Your task to perform on an android device: delete location history Image 0: 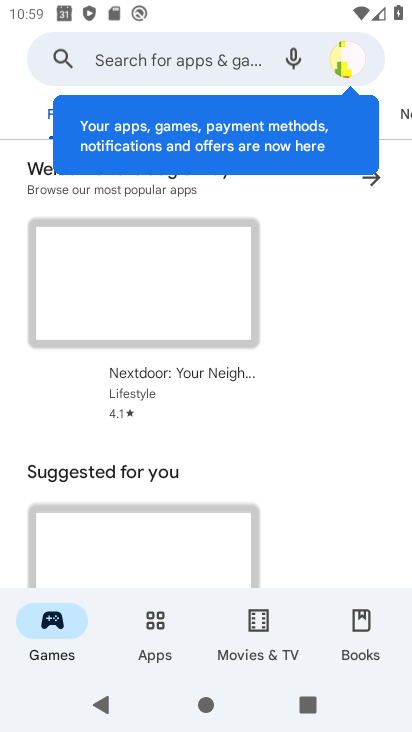
Step 0: press home button
Your task to perform on an android device: delete location history Image 1: 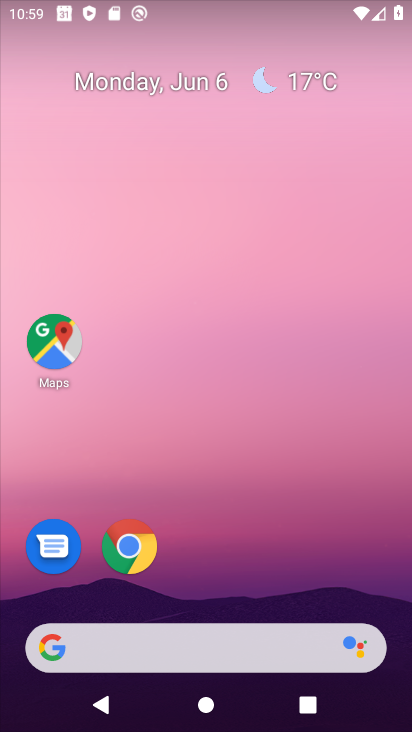
Step 1: drag from (291, 527) to (221, 72)
Your task to perform on an android device: delete location history Image 2: 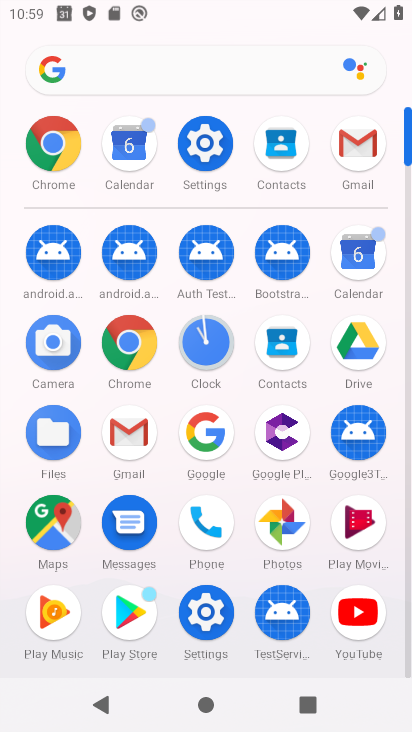
Step 2: click (49, 527)
Your task to perform on an android device: delete location history Image 3: 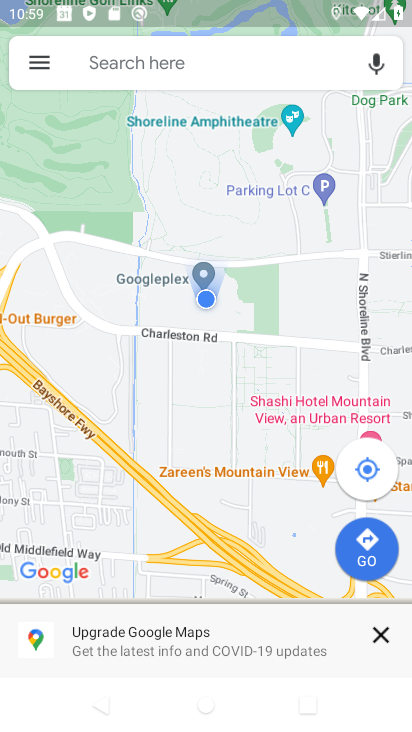
Step 3: click (40, 57)
Your task to perform on an android device: delete location history Image 4: 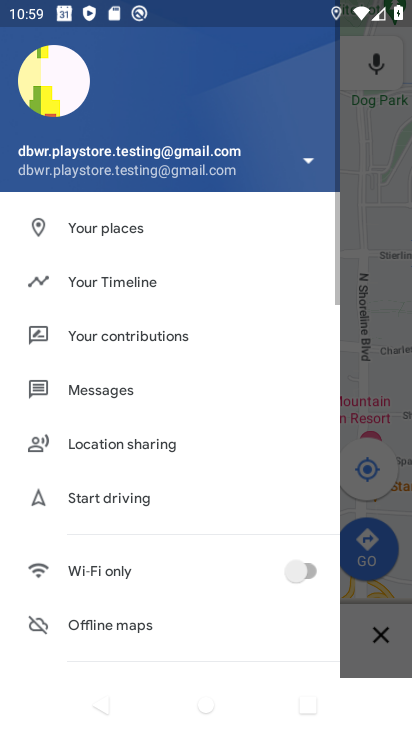
Step 4: drag from (139, 409) to (244, 86)
Your task to perform on an android device: delete location history Image 5: 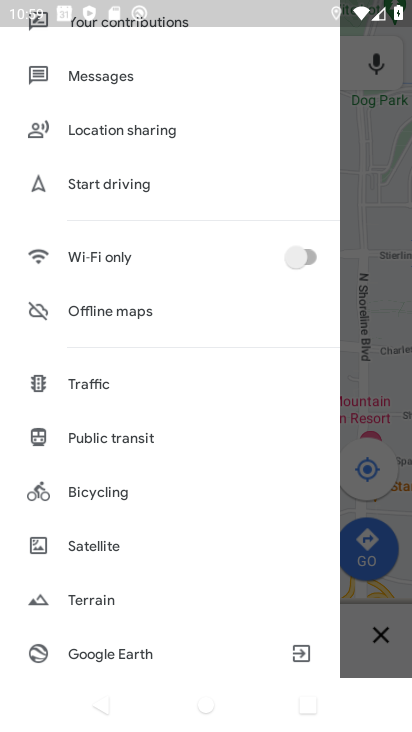
Step 5: drag from (120, 569) to (276, 134)
Your task to perform on an android device: delete location history Image 6: 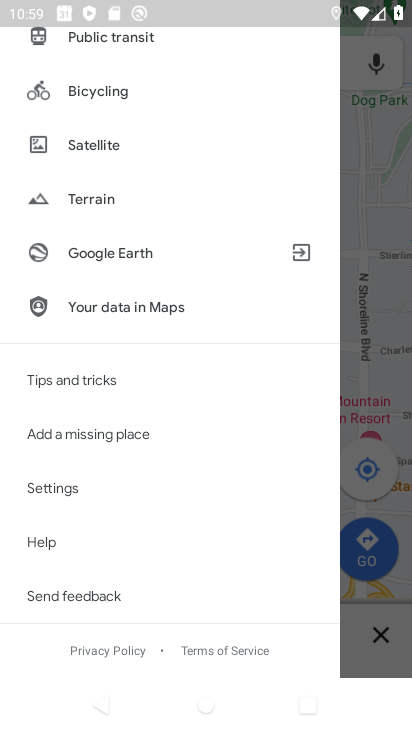
Step 6: click (56, 485)
Your task to perform on an android device: delete location history Image 7: 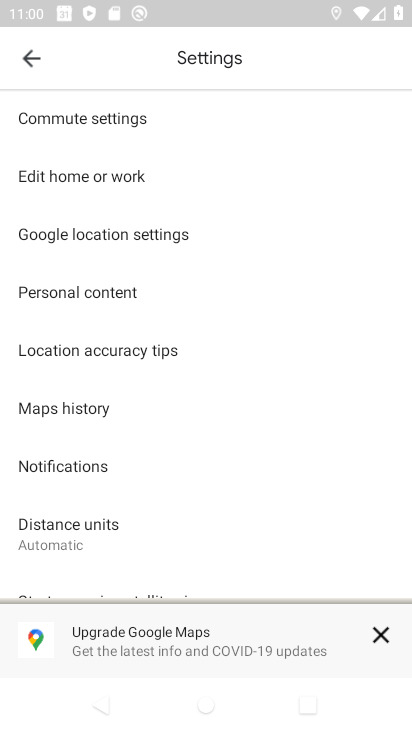
Step 7: click (80, 411)
Your task to perform on an android device: delete location history Image 8: 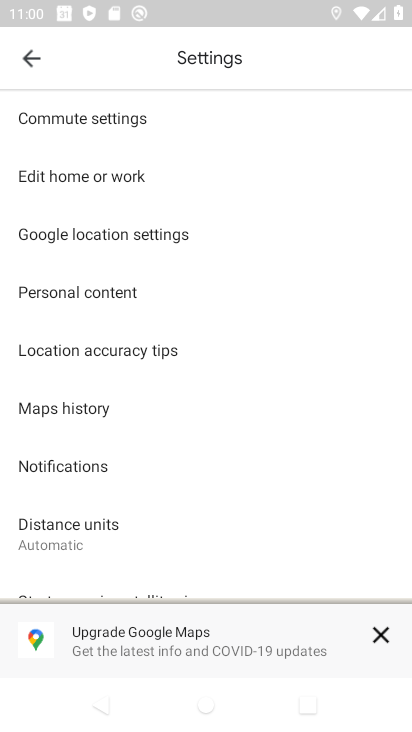
Step 8: click (89, 406)
Your task to perform on an android device: delete location history Image 9: 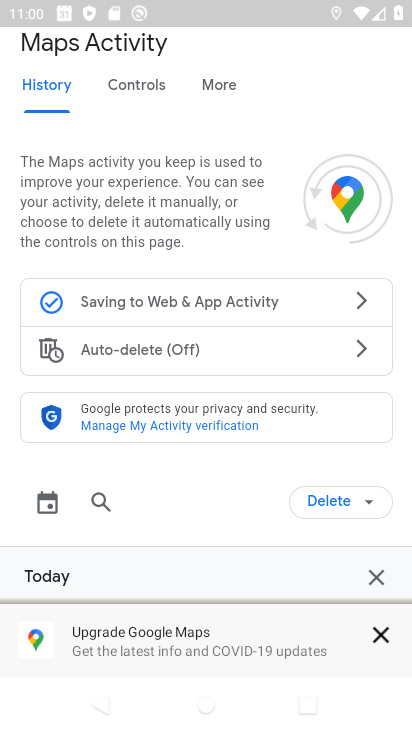
Step 9: click (367, 519)
Your task to perform on an android device: delete location history Image 10: 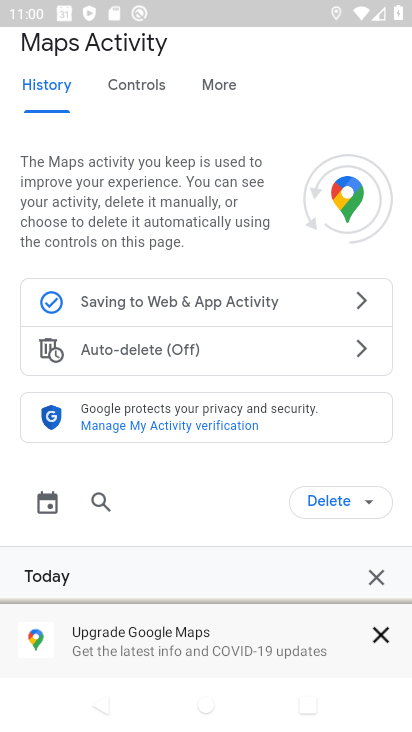
Step 10: click (366, 508)
Your task to perform on an android device: delete location history Image 11: 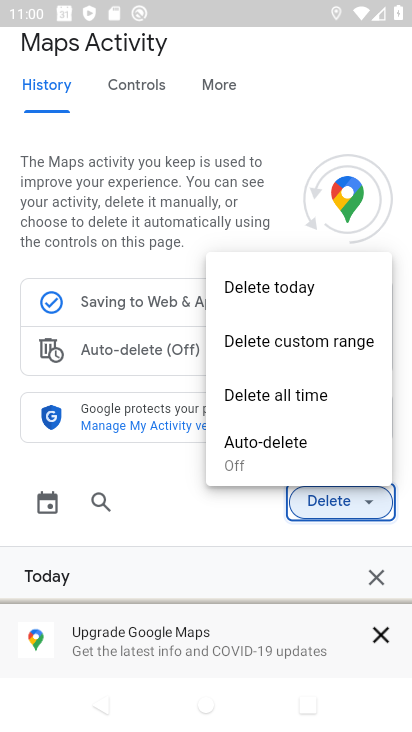
Step 11: click (270, 396)
Your task to perform on an android device: delete location history Image 12: 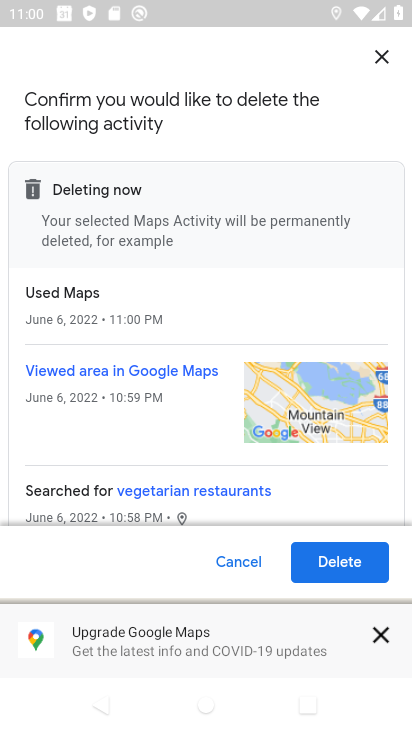
Step 12: click (332, 558)
Your task to perform on an android device: delete location history Image 13: 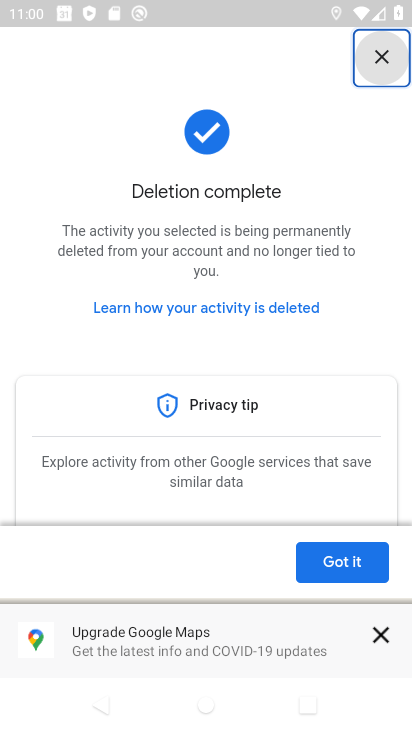
Step 13: task complete